Your task to perform on an android device: check android version Image 0: 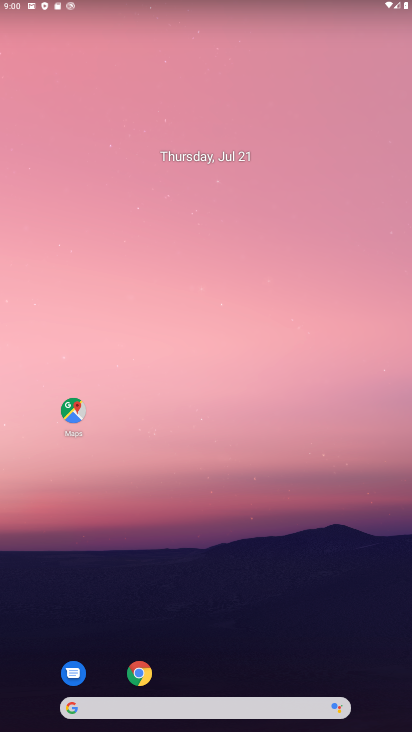
Step 0: click (342, 586)
Your task to perform on an android device: check android version Image 1: 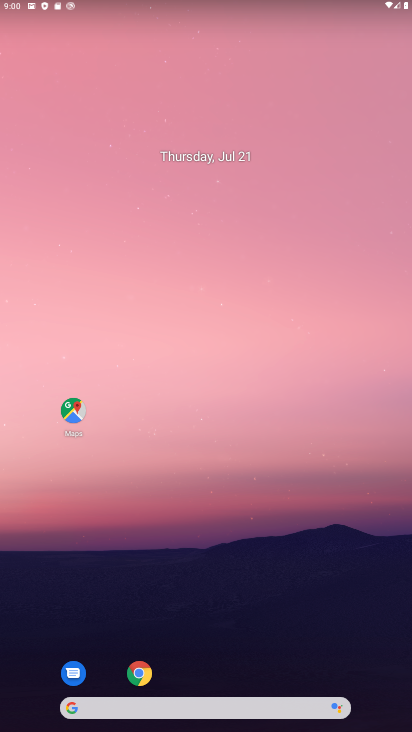
Step 1: drag from (172, 681) to (271, 302)
Your task to perform on an android device: check android version Image 2: 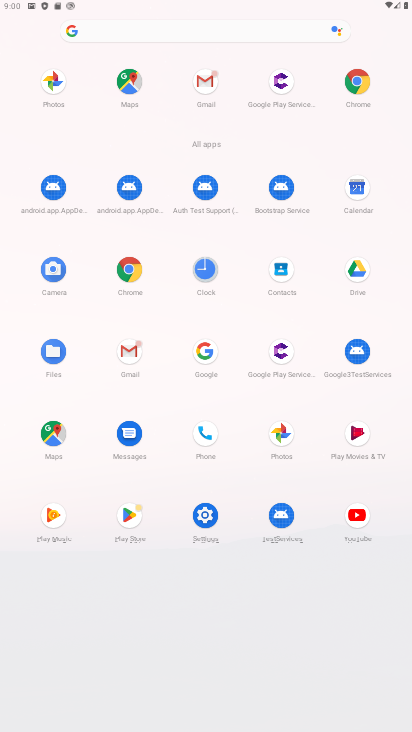
Step 2: click (199, 521)
Your task to perform on an android device: check android version Image 3: 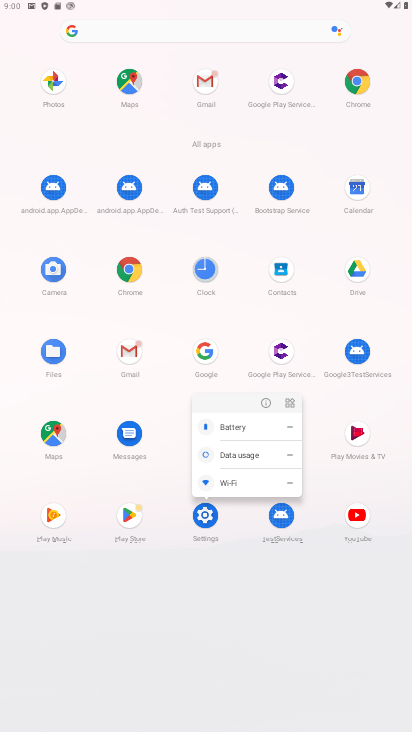
Step 3: click (266, 400)
Your task to perform on an android device: check android version Image 4: 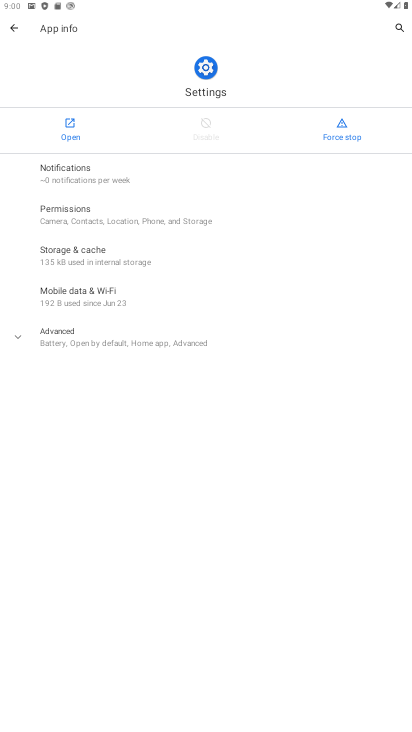
Step 4: click (69, 129)
Your task to perform on an android device: check android version Image 5: 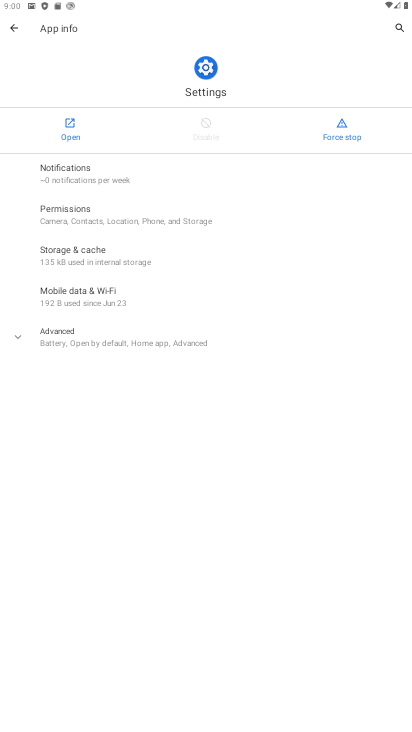
Step 5: click (69, 129)
Your task to perform on an android device: check android version Image 6: 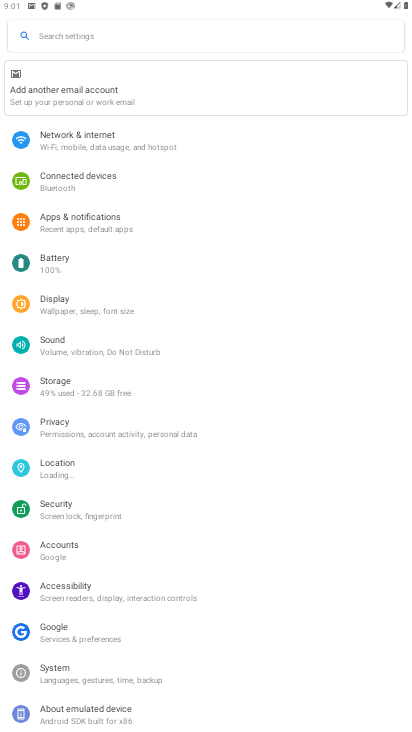
Step 6: click (92, 710)
Your task to perform on an android device: check android version Image 7: 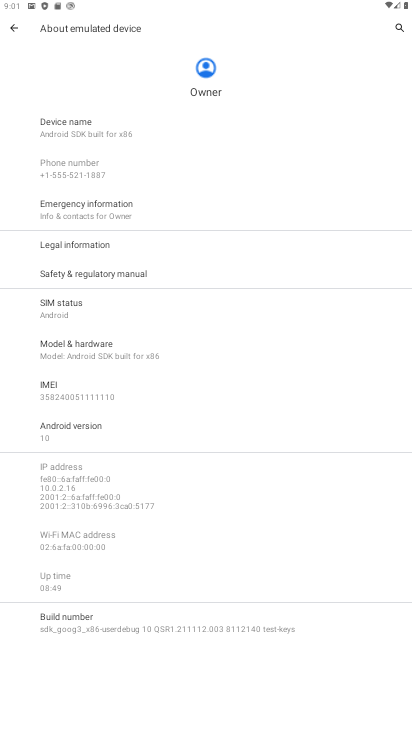
Step 7: click (98, 429)
Your task to perform on an android device: check android version Image 8: 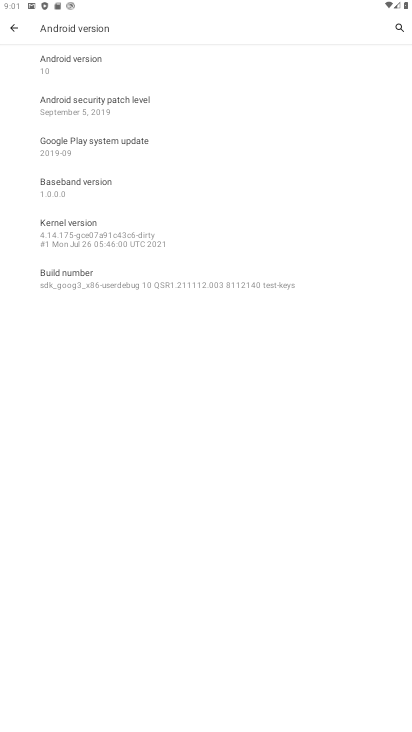
Step 8: click (97, 64)
Your task to perform on an android device: check android version Image 9: 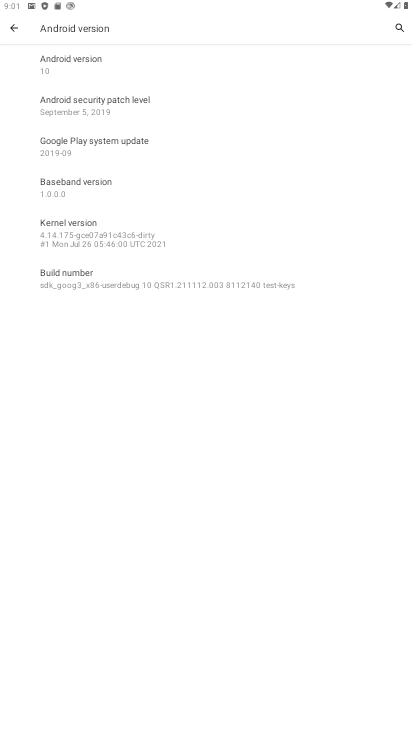
Step 9: task complete